Your task to perform on an android device: turn off notifications in google photos Image 0: 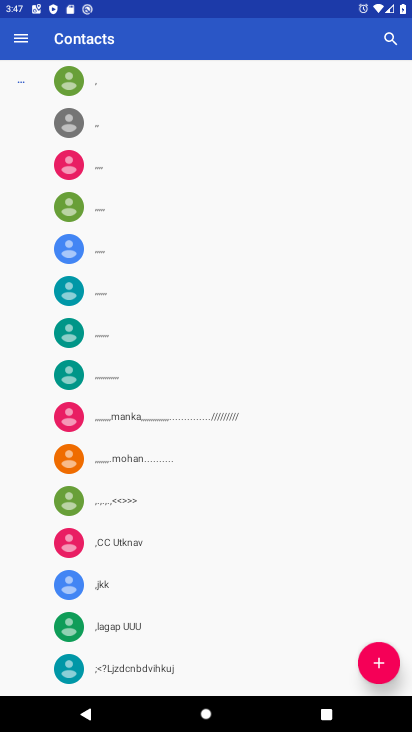
Step 0: press back button
Your task to perform on an android device: turn off notifications in google photos Image 1: 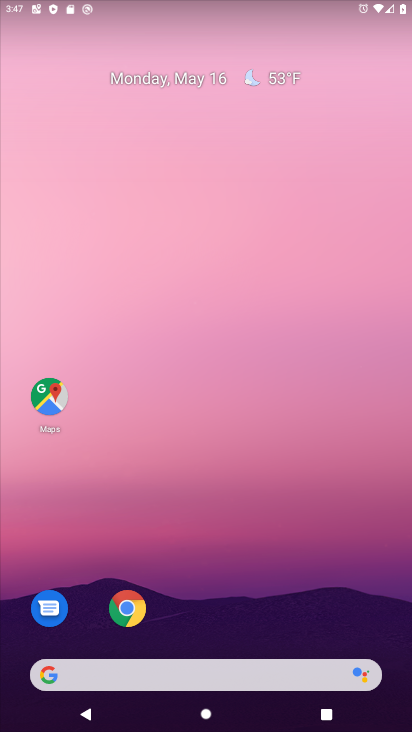
Step 1: drag from (242, 581) to (210, 108)
Your task to perform on an android device: turn off notifications in google photos Image 2: 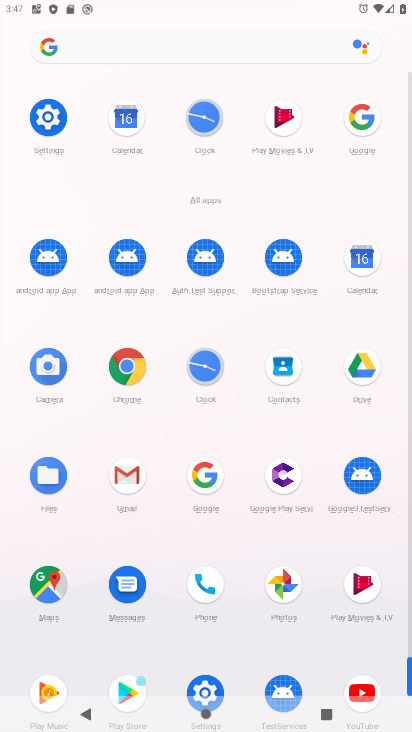
Step 2: click (284, 581)
Your task to perform on an android device: turn off notifications in google photos Image 3: 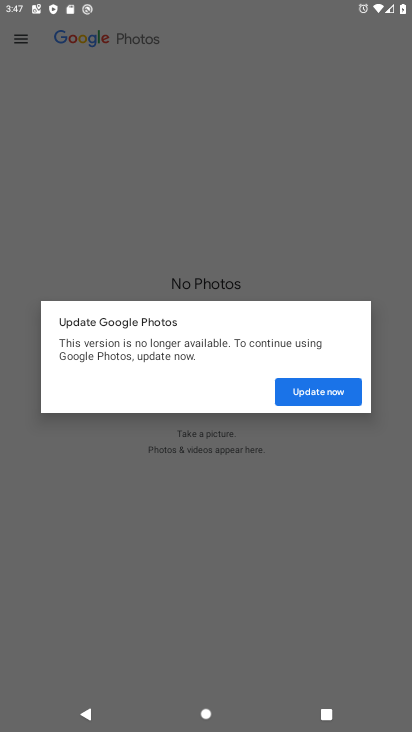
Step 3: click (301, 385)
Your task to perform on an android device: turn off notifications in google photos Image 4: 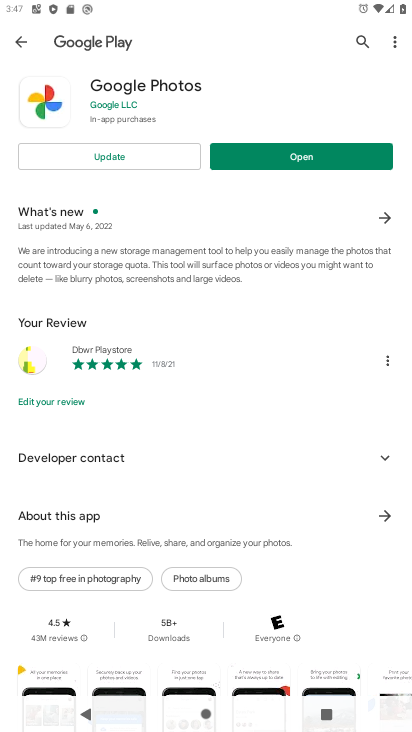
Step 4: click (146, 159)
Your task to perform on an android device: turn off notifications in google photos Image 5: 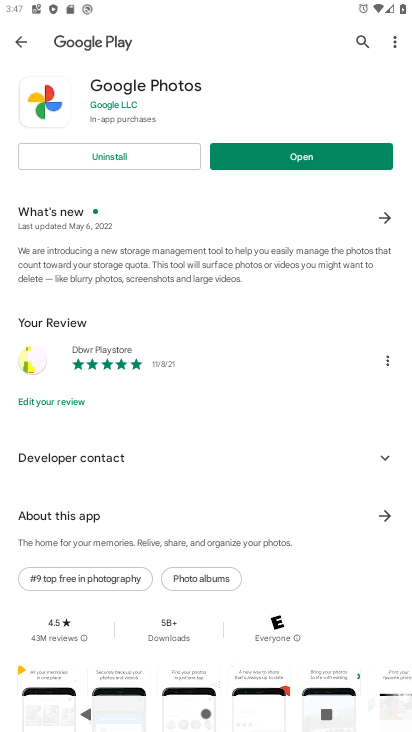
Step 5: click (292, 160)
Your task to perform on an android device: turn off notifications in google photos Image 6: 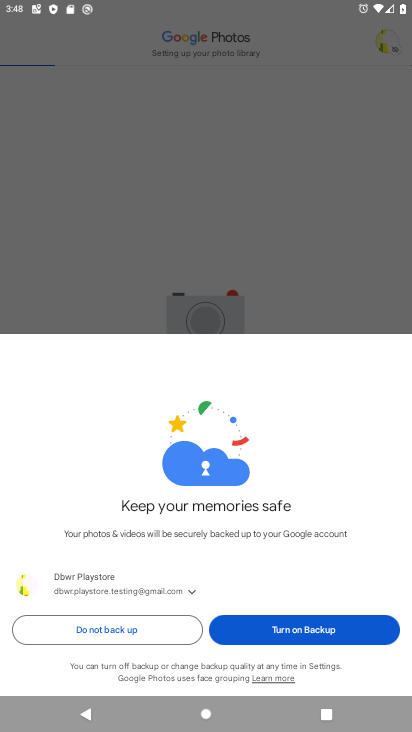
Step 6: click (277, 637)
Your task to perform on an android device: turn off notifications in google photos Image 7: 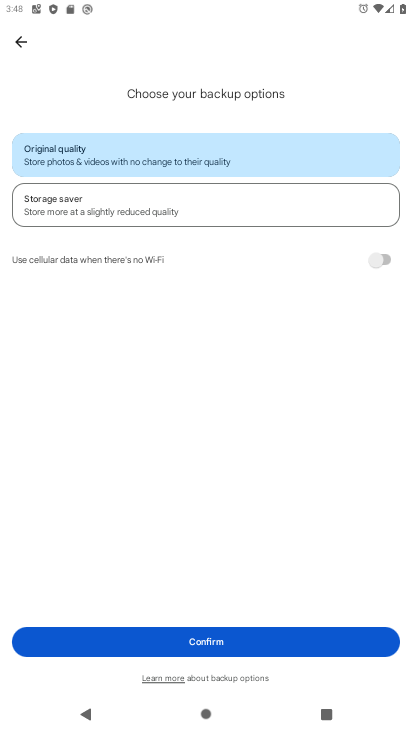
Step 7: click (249, 655)
Your task to perform on an android device: turn off notifications in google photos Image 8: 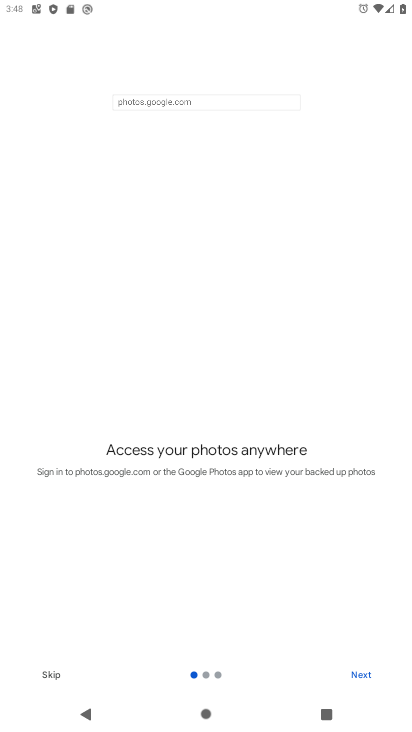
Step 8: click (373, 676)
Your task to perform on an android device: turn off notifications in google photos Image 9: 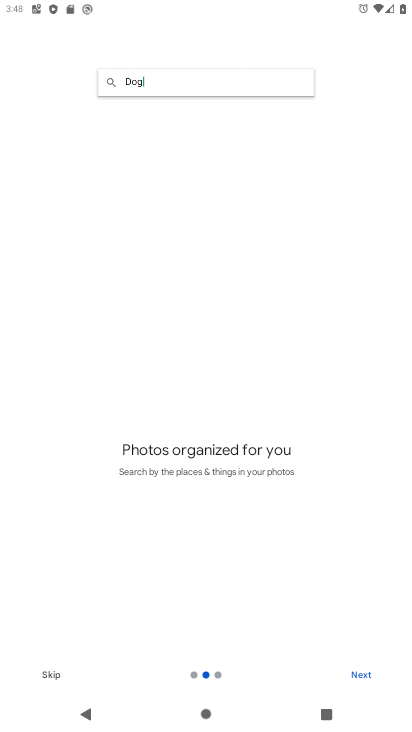
Step 9: click (373, 676)
Your task to perform on an android device: turn off notifications in google photos Image 10: 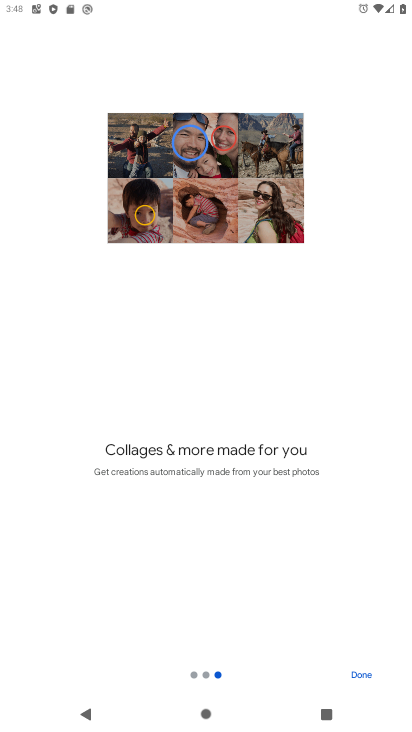
Step 10: click (373, 676)
Your task to perform on an android device: turn off notifications in google photos Image 11: 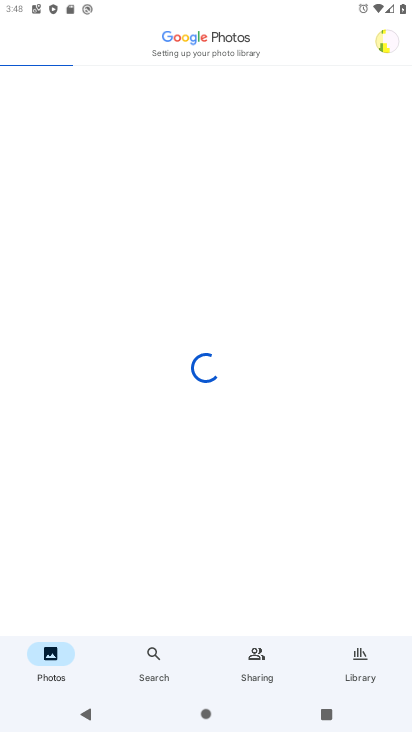
Step 11: click (390, 43)
Your task to perform on an android device: turn off notifications in google photos Image 12: 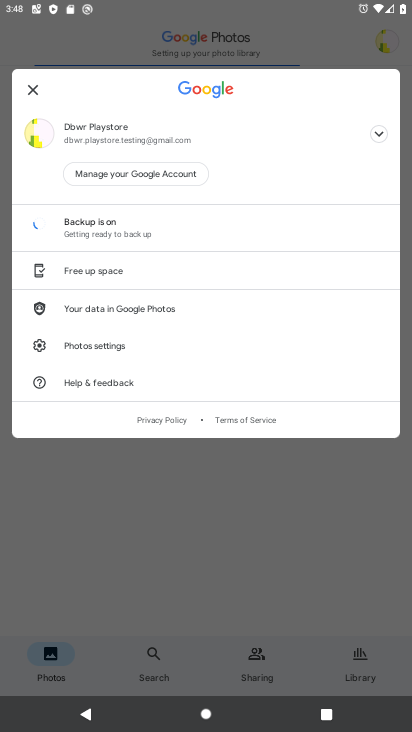
Step 12: click (94, 349)
Your task to perform on an android device: turn off notifications in google photos Image 13: 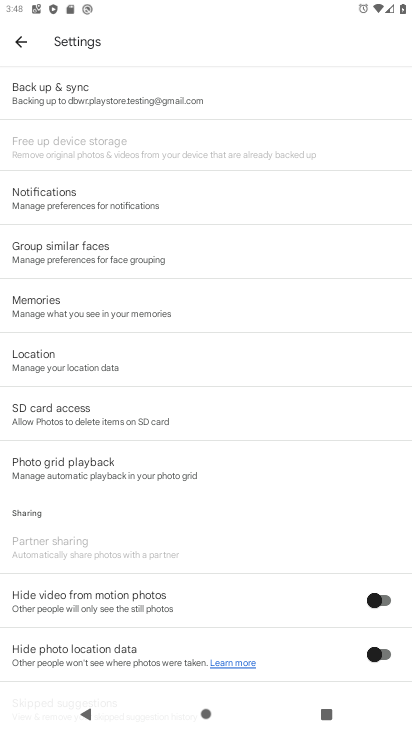
Step 13: click (133, 197)
Your task to perform on an android device: turn off notifications in google photos Image 14: 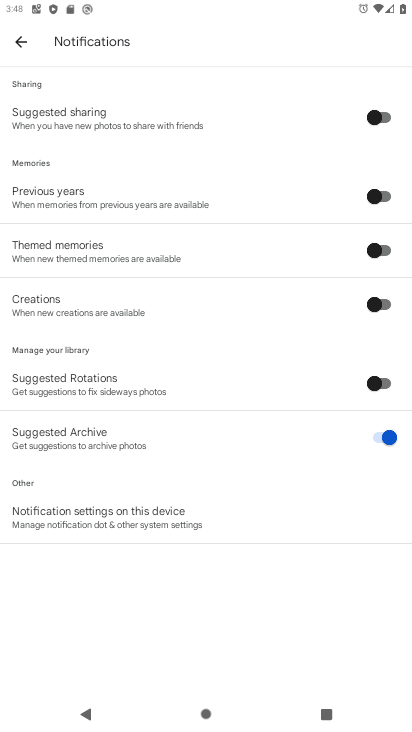
Step 14: click (136, 519)
Your task to perform on an android device: turn off notifications in google photos Image 15: 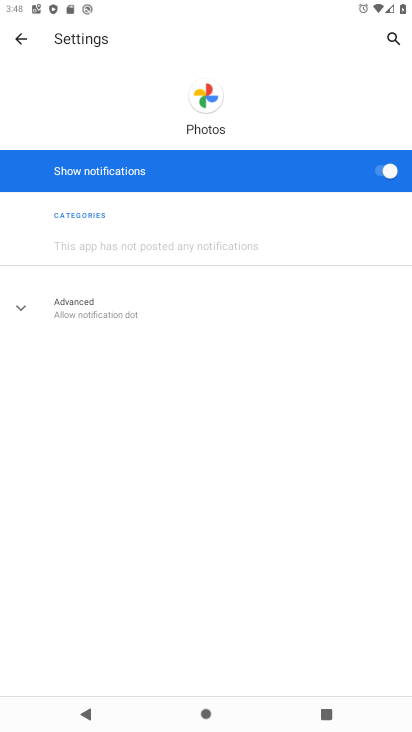
Step 15: click (393, 172)
Your task to perform on an android device: turn off notifications in google photos Image 16: 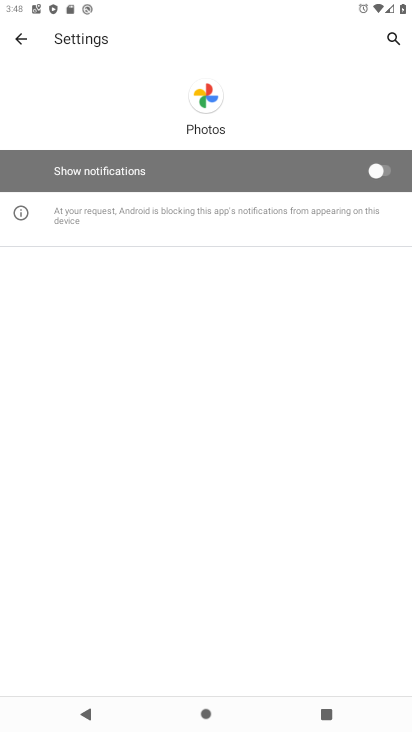
Step 16: task complete